Your task to perform on an android device: allow cookies in the chrome app Image 0: 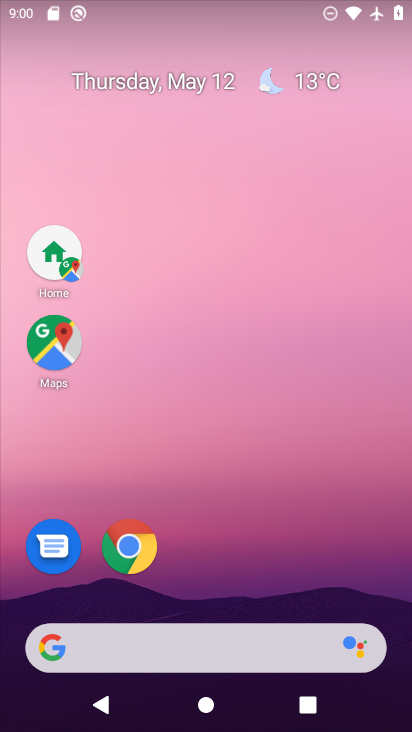
Step 0: press home button
Your task to perform on an android device: allow cookies in the chrome app Image 1: 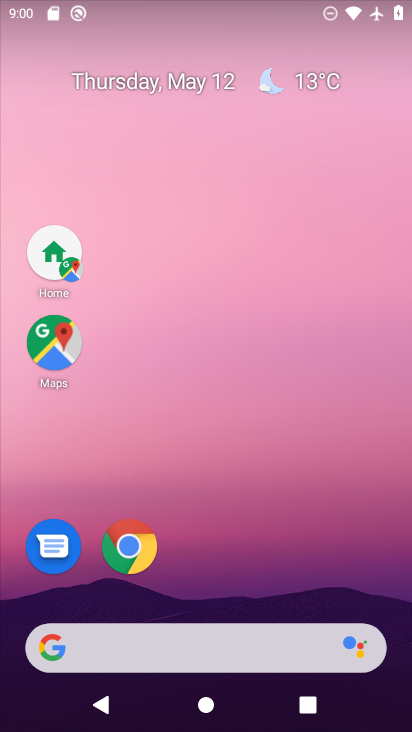
Step 1: click (139, 549)
Your task to perform on an android device: allow cookies in the chrome app Image 2: 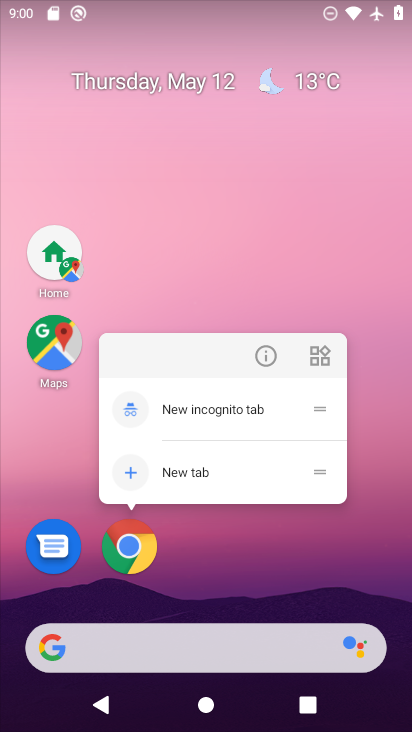
Step 2: click (134, 550)
Your task to perform on an android device: allow cookies in the chrome app Image 3: 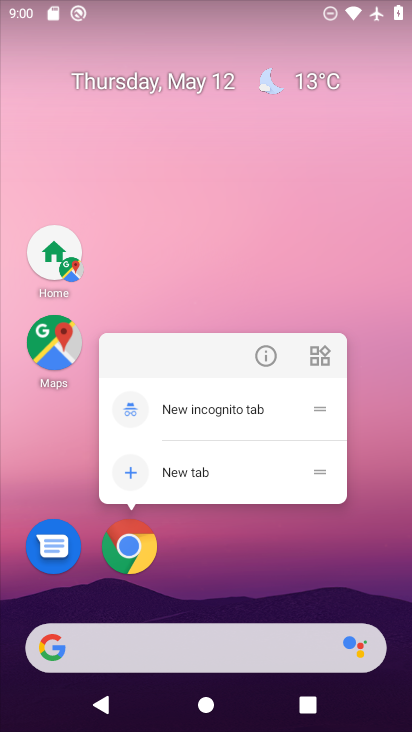
Step 3: click (129, 557)
Your task to perform on an android device: allow cookies in the chrome app Image 4: 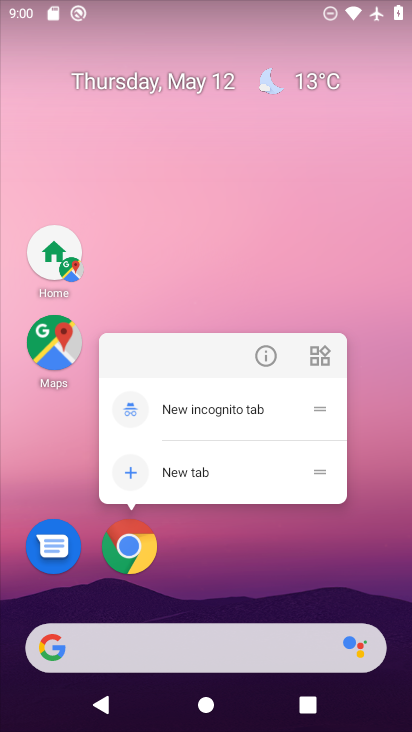
Step 4: click (129, 548)
Your task to perform on an android device: allow cookies in the chrome app Image 5: 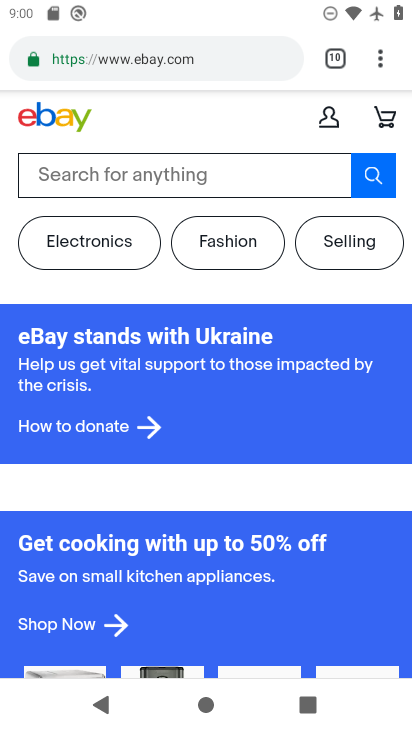
Step 5: drag from (382, 60) to (263, 568)
Your task to perform on an android device: allow cookies in the chrome app Image 6: 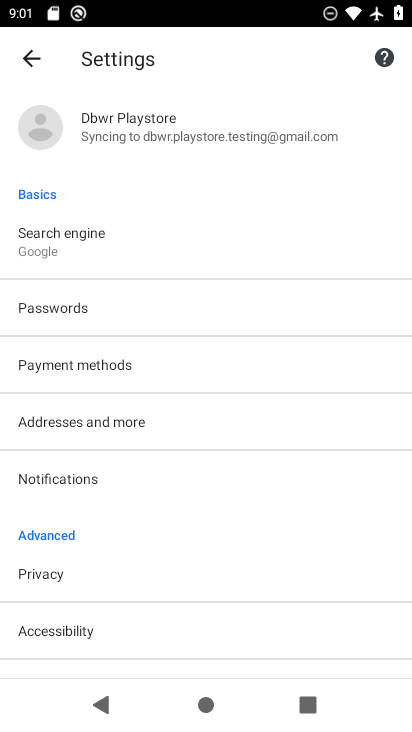
Step 6: drag from (118, 581) to (308, 190)
Your task to perform on an android device: allow cookies in the chrome app Image 7: 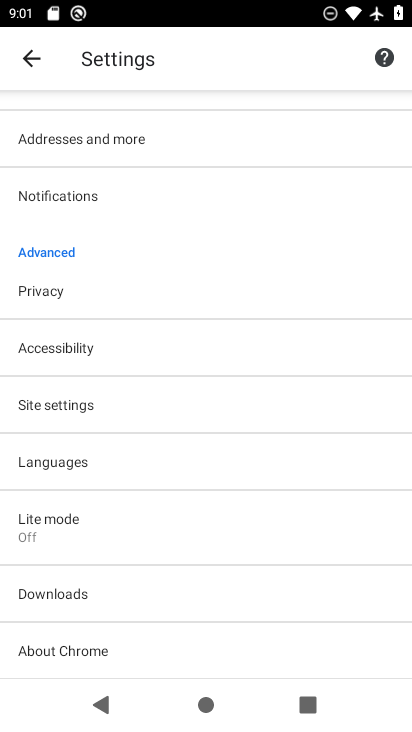
Step 7: click (65, 408)
Your task to perform on an android device: allow cookies in the chrome app Image 8: 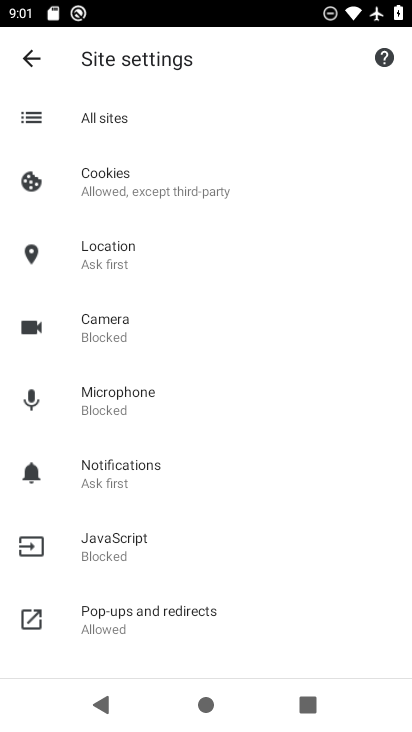
Step 8: click (153, 192)
Your task to perform on an android device: allow cookies in the chrome app Image 9: 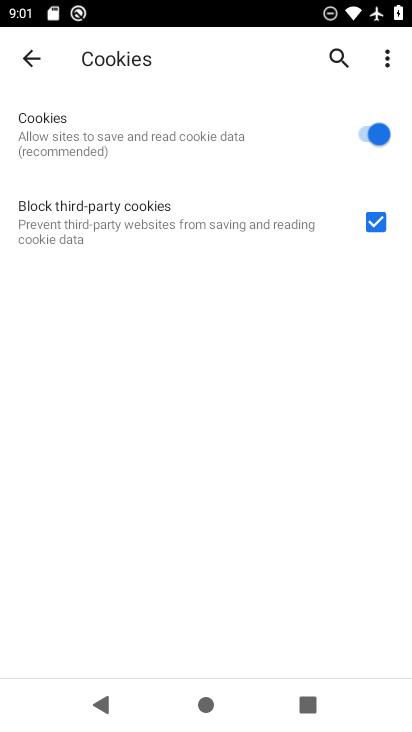
Step 9: task complete